Your task to perform on an android device: Open Google Chrome and click the shortcut for Amazon.com Image 0: 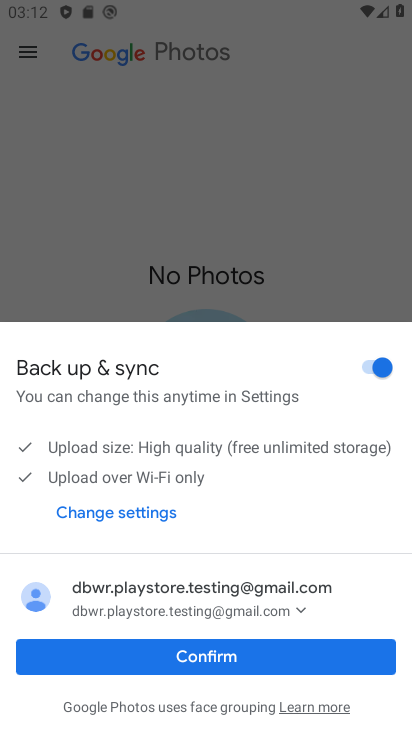
Step 0: press home button
Your task to perform on an android device: Open Google Chrome and click the shortcut for Amazon.com Image 1: 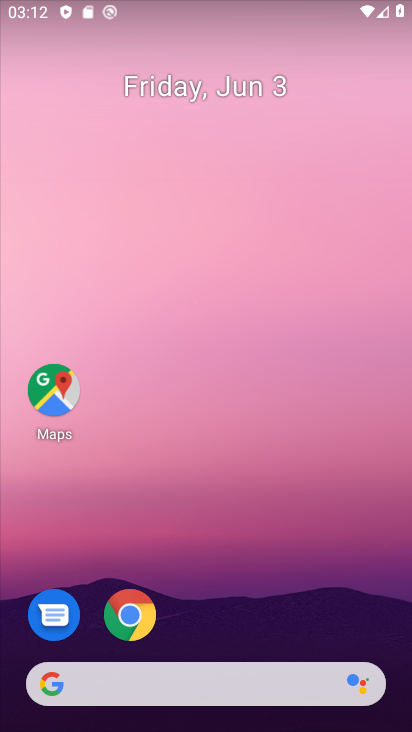
Step 1: click (138, 621)
Your task to perform on an android device: Open Google Chrome and click the shortcut for Amazon.com Image 2: 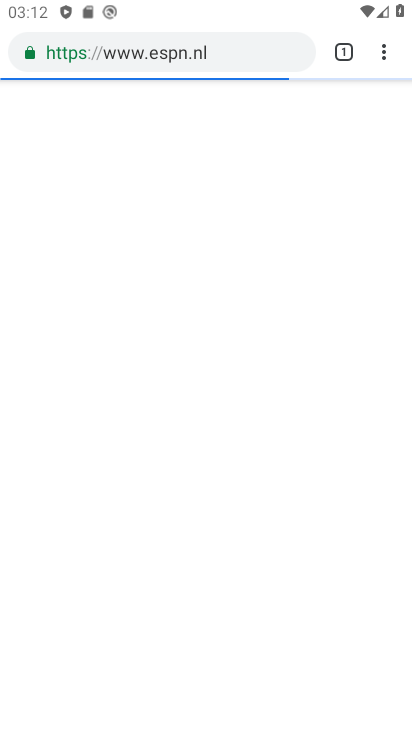
Step 2: click (347, 48)
Your task to perform on an android device: Open Google Chrome and click the shortcut for Amazon.com Image 3: 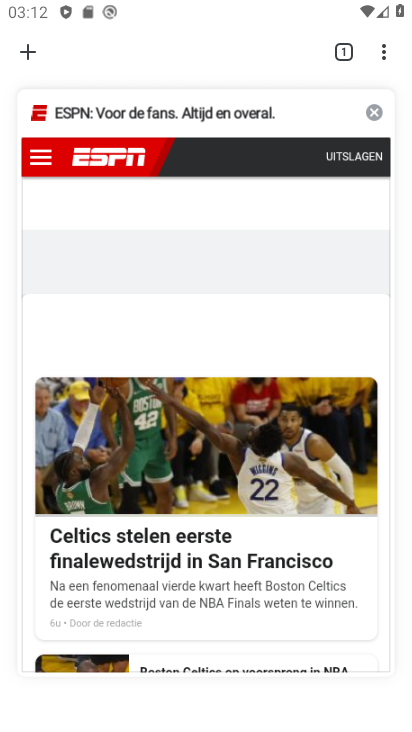
Step 3: click (29, 50)
Your task to perform on an android device: Open Google Chrome and click the shortcut for Amazon.com Image 4: 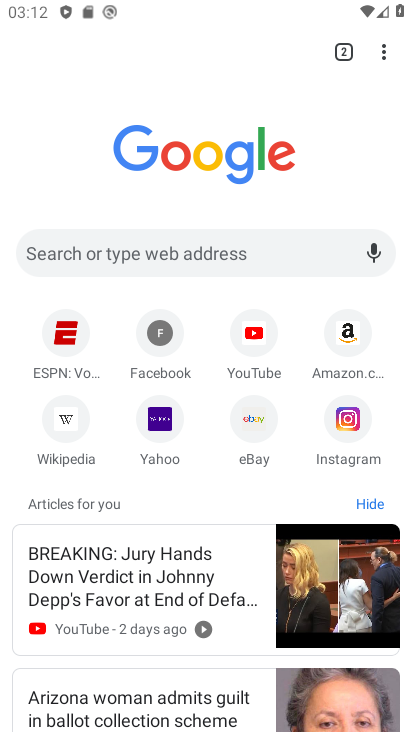
Step 4: click (351, 363)
Your task to perform on an android device: Open Google Chrome and click the shortcut for Amazon.com Image 5: 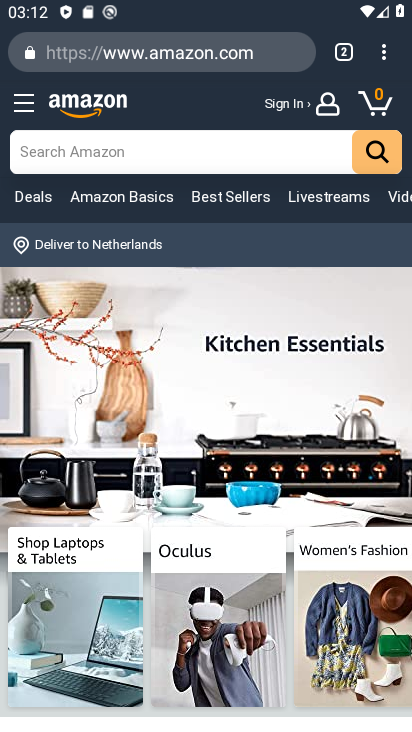
Step 5: task complete